Your task to perform on an android device: clear history in the chrome app Image 0: 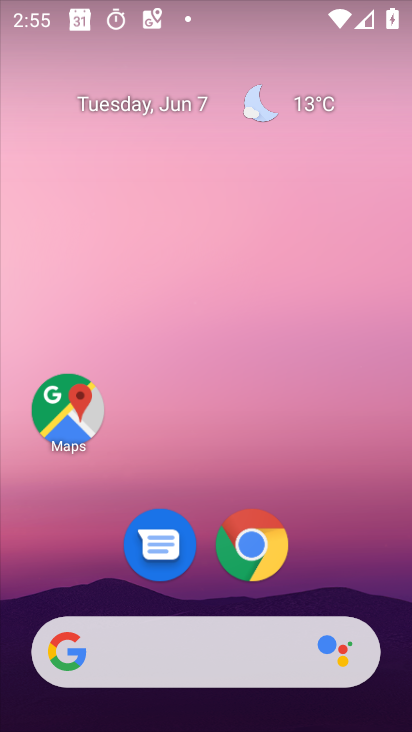
Step 0: click (264, 559)
Your task to perform on an android device: clear history in the chrome app Image 1: 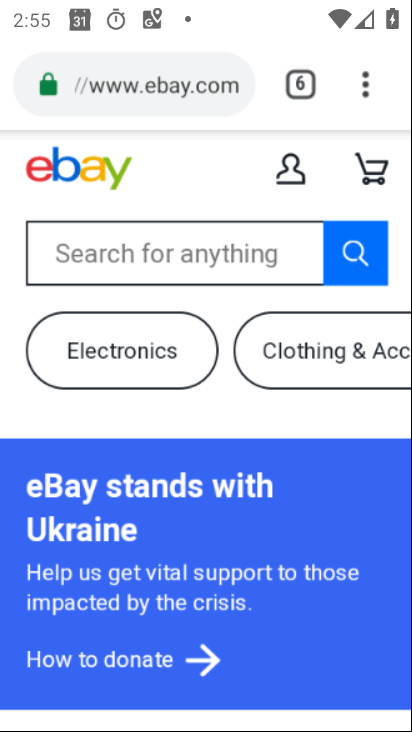
Step 1: click (372, 78)
Your task to perform on an android device: clear history in the chrome app Image 2: 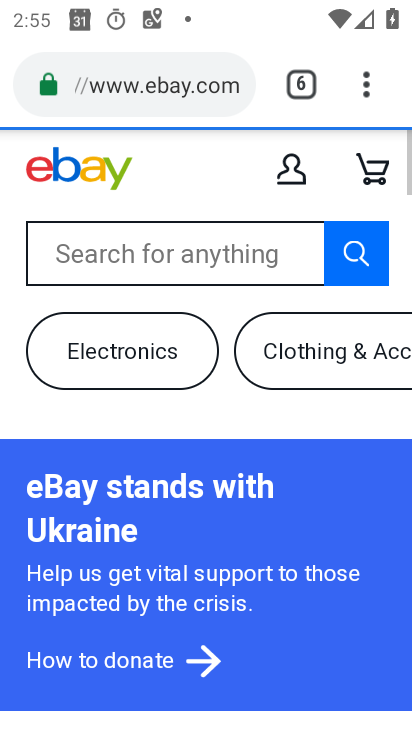
Step 2: click (361, 83)
Your task to perform on an android device: clear history in the chrome app Image 3: 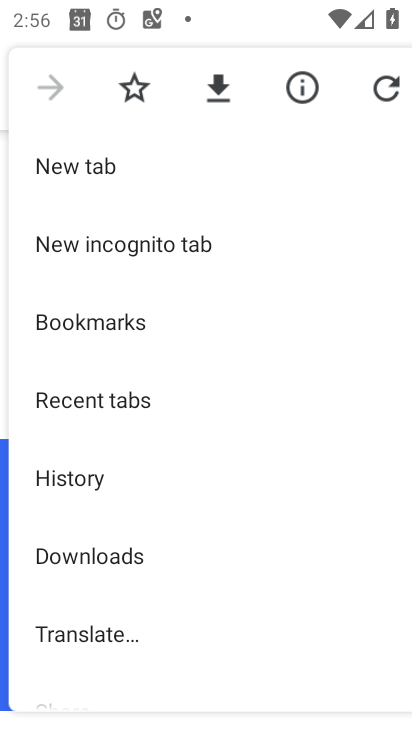
Step 3: click (119, 484)
Your task to perform on an android device: clear history in the chrome app Image 4: 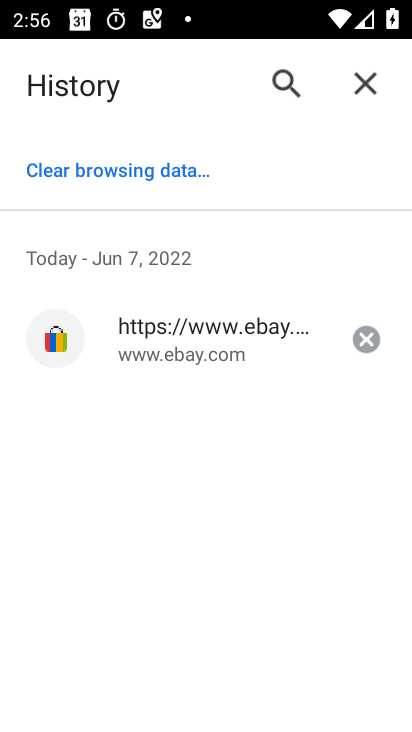
Step 4: click (149, 178)
Your task to perform on an android device: clear history in the chrome app Image 5: 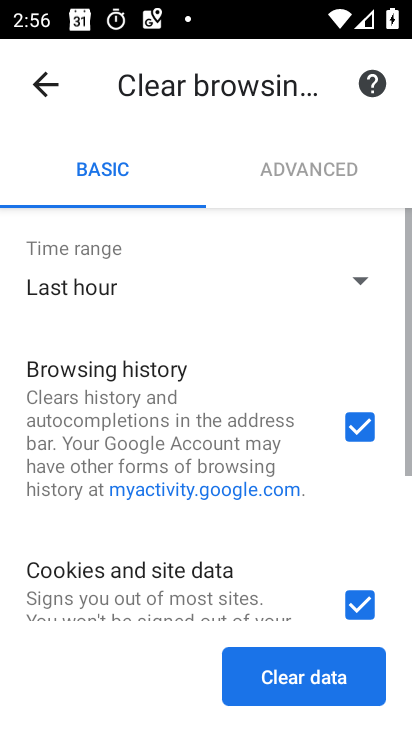
Step 5: click (289, 679)
Your task to perform on an android device: clear history in the chrome app Image 6: 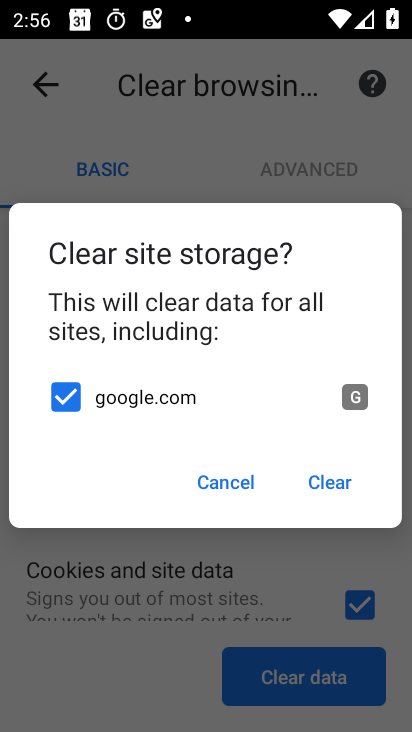
Step 6: click (327, 478)
Your task to perform on an android device: clear history in the chrome app Image 7: 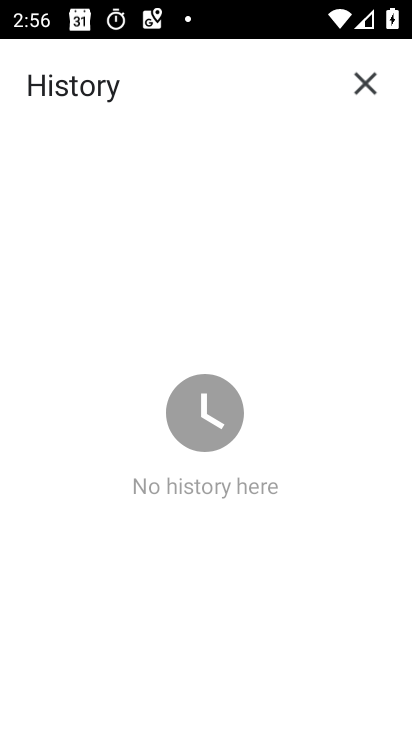
Step 7: task complete